Your task to perform on an android device: Go to Wikipedia Image 0: 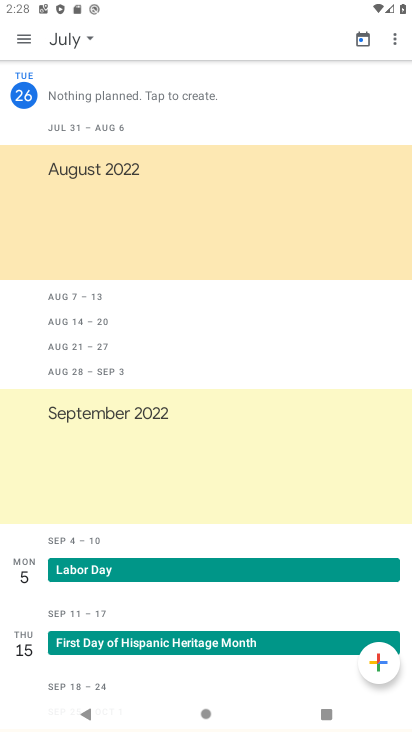
Step 0: task complete